Your task to perform on an android device: delete browsing data in the chrome app Image 0: 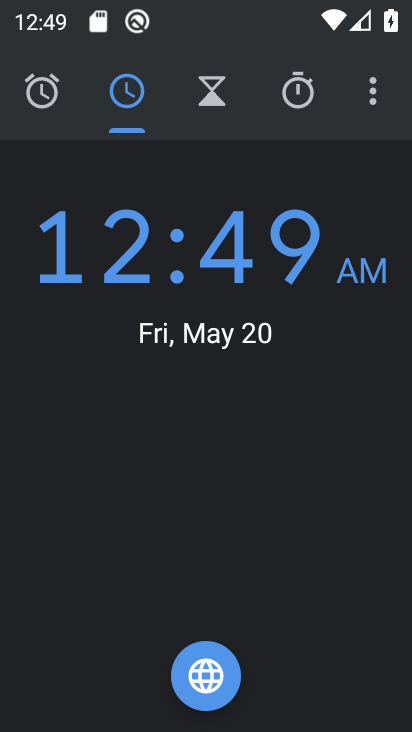
Step 0: press home button
Your task to perform on an android device: delete browsing data in the chrome app Image 1: 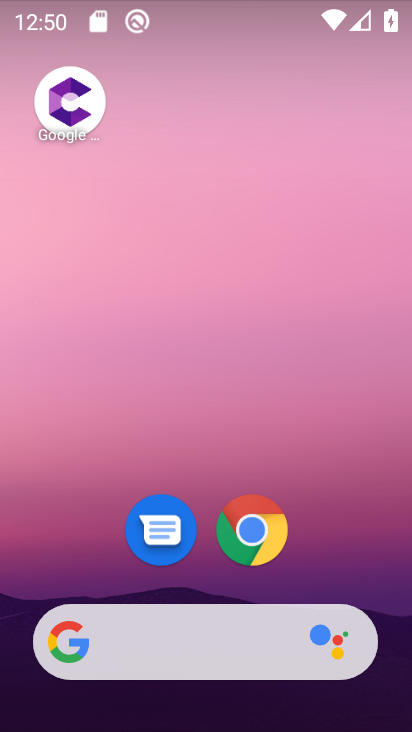
Step 1: click (254, 525)
Your task to perform on an android device: delete browsing data in the chrome app Image 2: 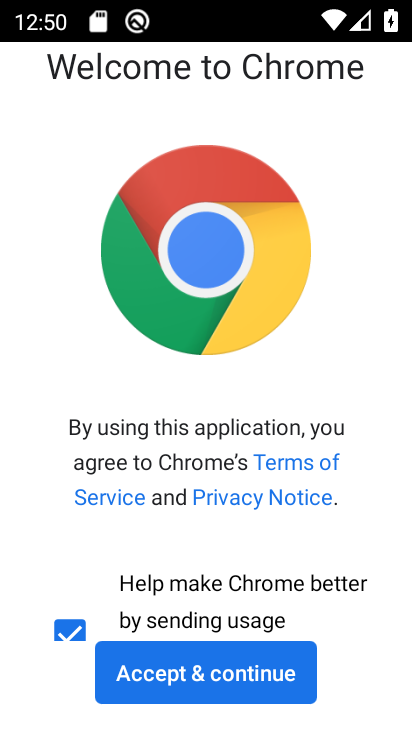
Step 2: click (243, 666)
Your task to perform on an android device: delete browsing data in the chrome app Image 3: 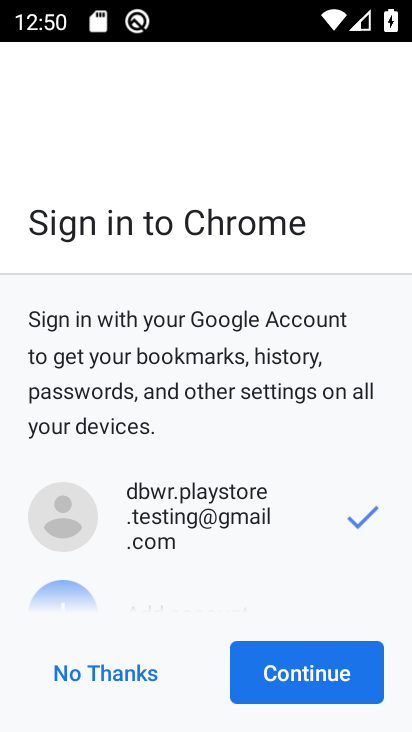
Step 3: click (305, 664)
Your task to perform on an android device: delete browsing data in the chrome app Image 4: 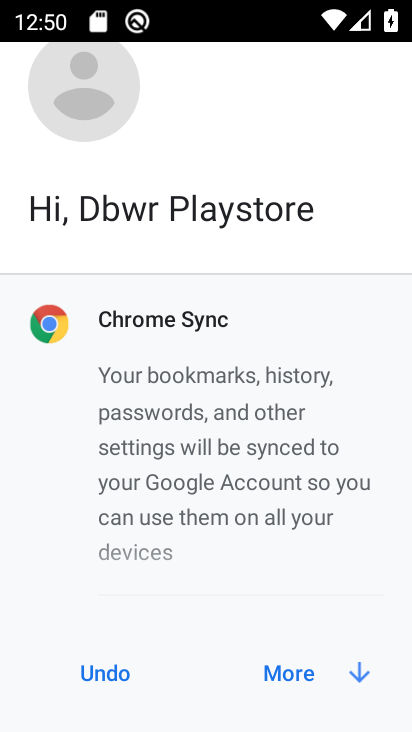
Step 4: click (305, 665)
Your task to perform on an android device: delete browsing data in the chrome app Image 5: 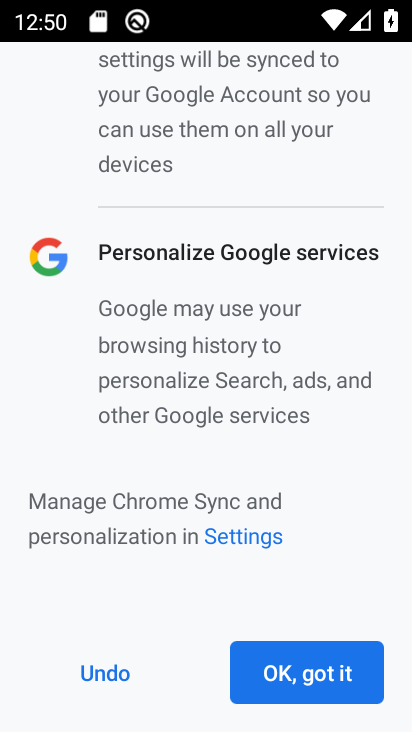
Step 5: click (305, 665)
Your task to perform on an android device: delete browsing data in the chrome app Image 6: 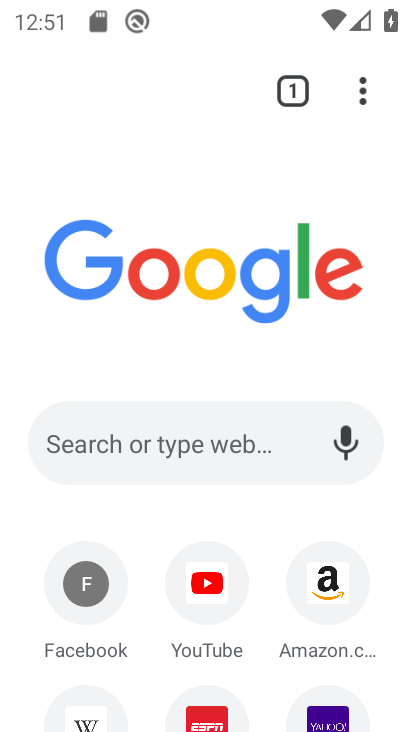
Step 6: click (359, 102)
Your task to perform on an android device: delete browsing data in the chrome app Image 7: 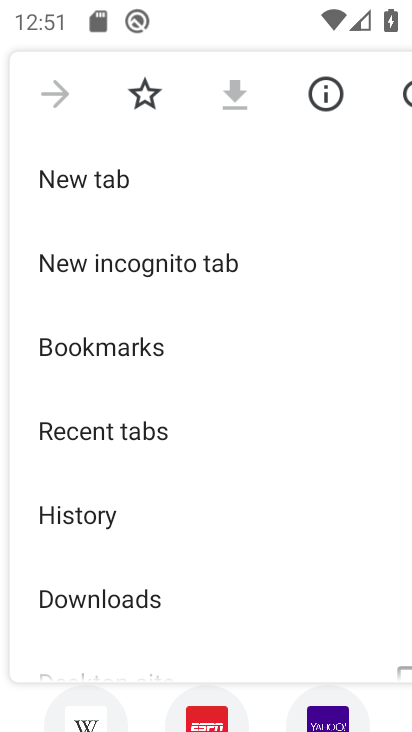
Step 7: drag from (324, 534) to (335, 146)
Your task to perform on an android device: delete browsing data in the chrome app Image 8: 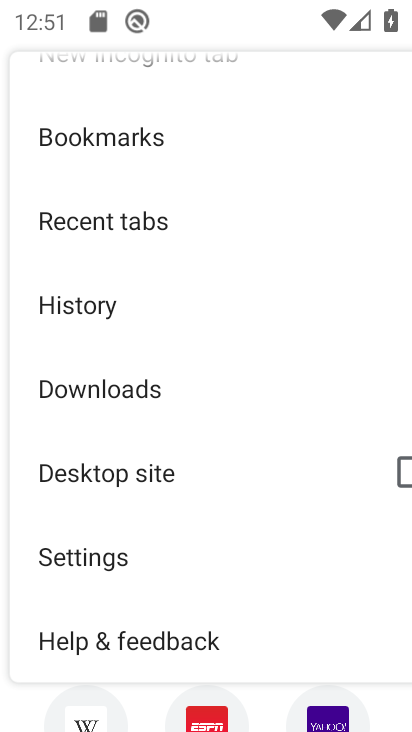
Step 8: drag from (205, 555) to (215, 178)
Your task to perform on an android device: delete browsing data in the chrome app Image 9: 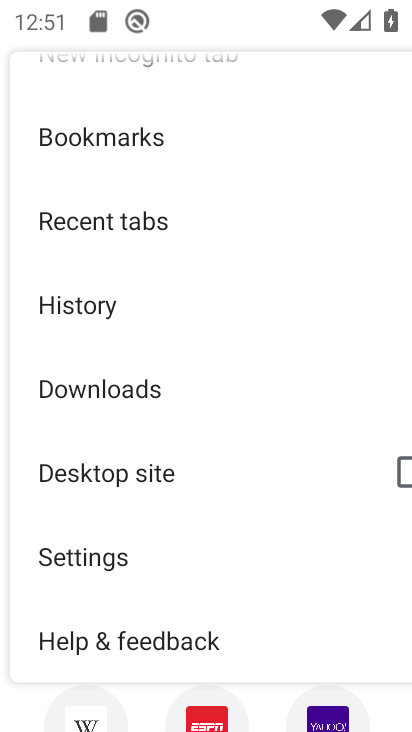
Step 9: click (124, 559)
Your task to perform on an android device: delete browsing data in the chrome app Image 10: 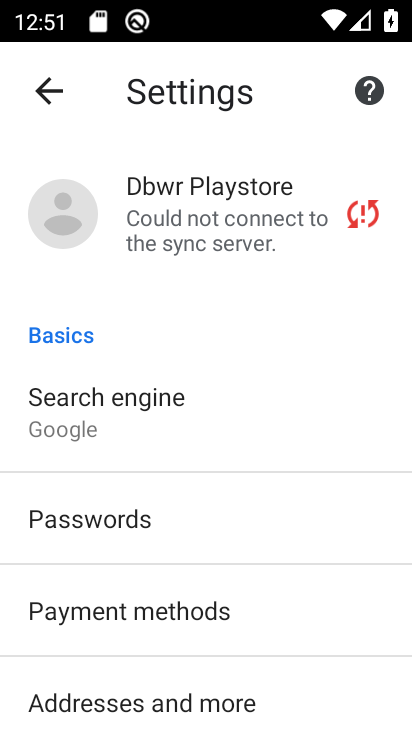
Step 10: drag from (124, 558) to (153, 167)
Your task to perform on an android device: delete browsing data in the chrome app Image 11: 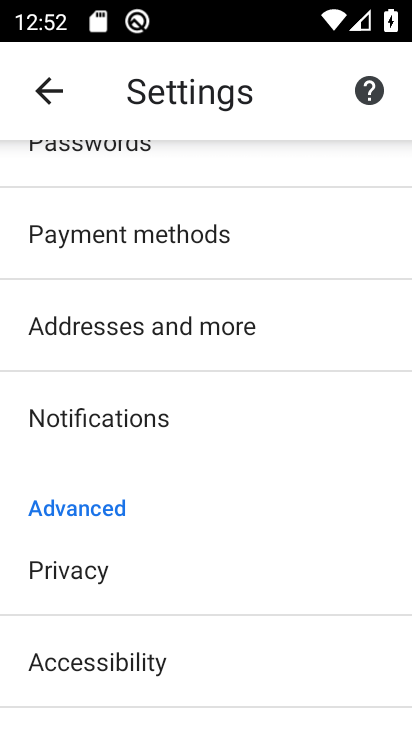
Step 11: click (178, 554)
Your task to perform on an android device: delete browsing data in the chrome app Image 12: 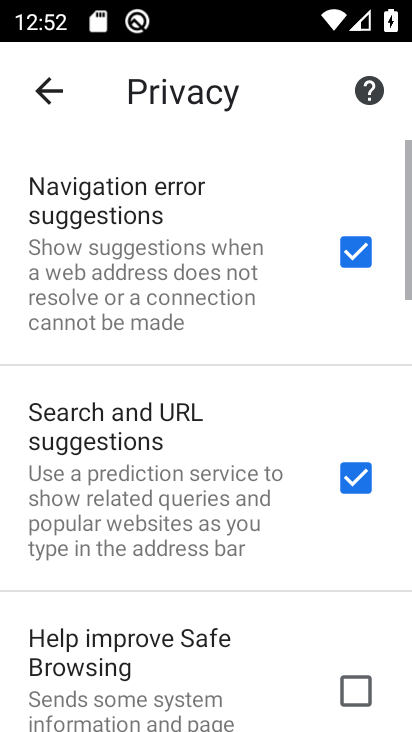
Step 12: drag from (251, 610) to (239, 199)
Your task to perform on an android device: delete browsing data in the chrome app Image 13: 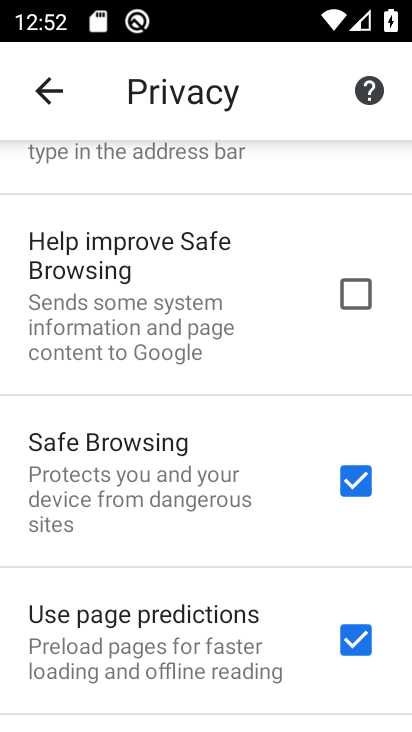
Step 13: drag from (208, 576) to (242, 180)
Your task to perform on an android device: delete browsing data in the chrome app Image 14: 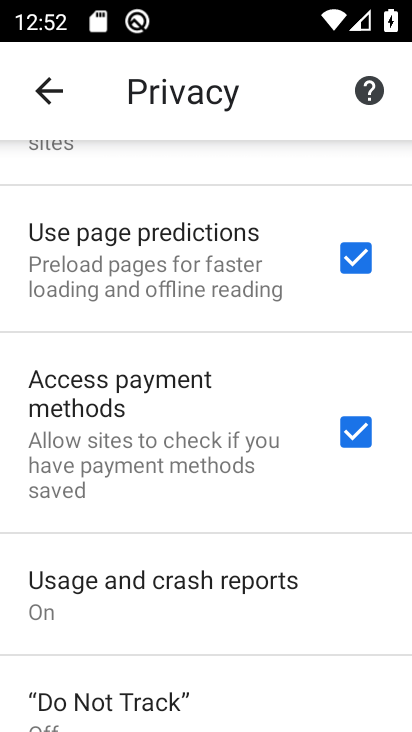
Step 14: drag from (253, 632) to (251, 320)
Your task to perform on an android device: delete browsing data in the chrome app Image 15: 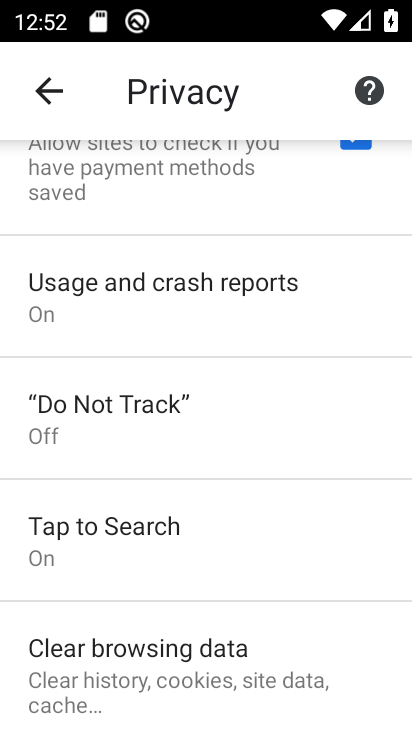
Step 15: click (264, 646)
Your task to perform on an android device: delete browsing data in the chrome app Image 16: 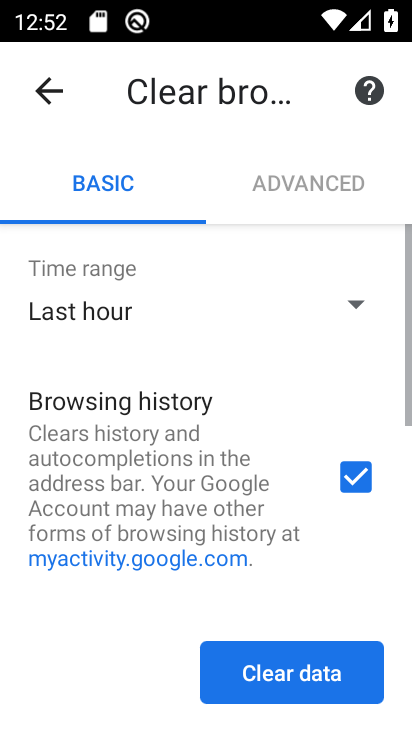
Step 16: drag from (221, 595) to (256, 209)
Your task to perform on an android device: delete browsing data in the chrome app Image 17: 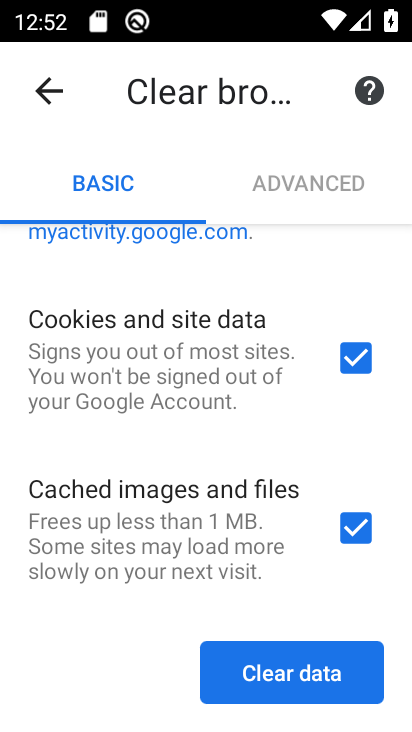
Step 17: click (272, 669)
Your task to perform on an android device: delete browsing data in the chrome app Image 18: 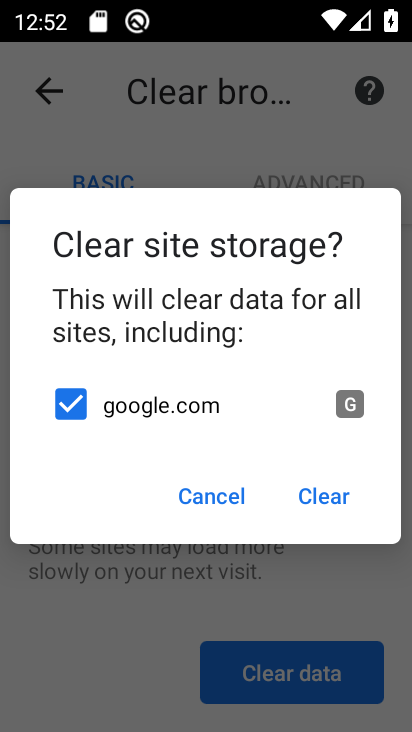
Step 18: click (318, 515)
Your task to perform on an android device: delete browsing data in the chrome app Image 19: 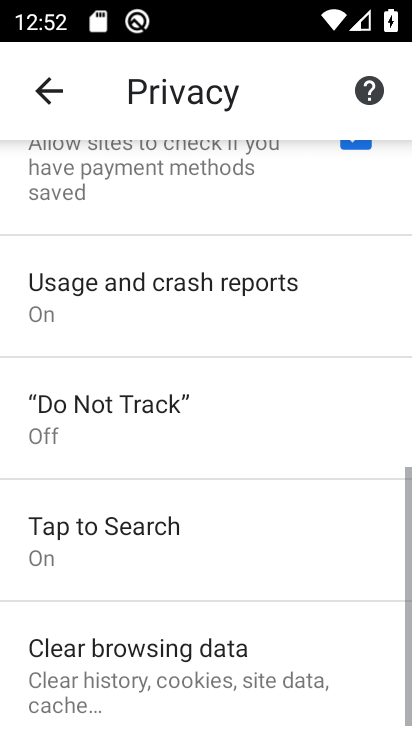
Step 19: task complete